Your task to perform on an android device: change the clock display to show seconds Image 0: 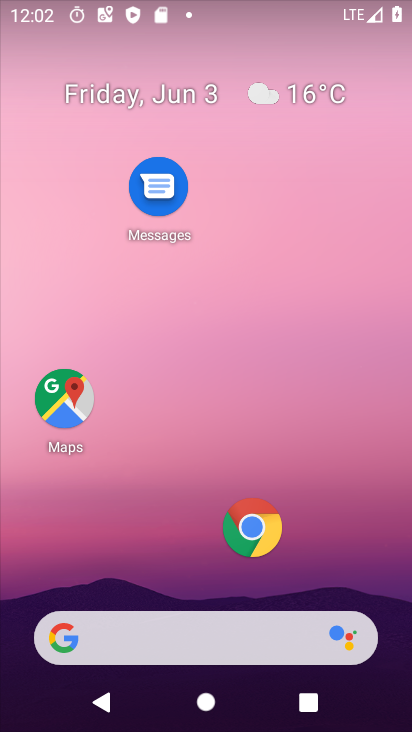
Step 0: drag from (317, 576) to (298, 138)
Your task to perform on an android device: change the clock display to show seconds Image 1: 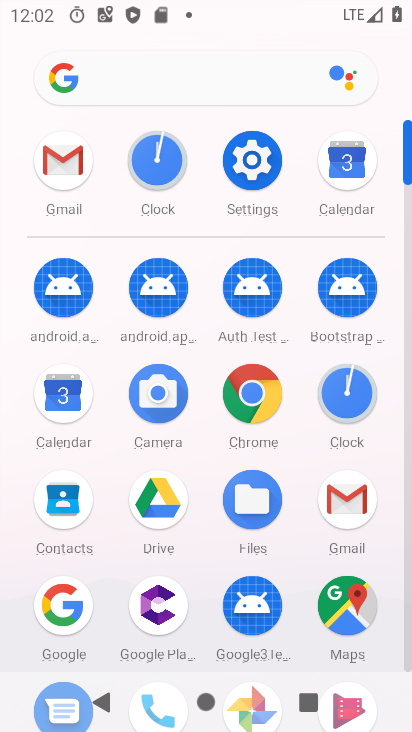
Step 1: click (344, 381)
Your task to perform on an android device: change the clock display to show seconds Image 2: 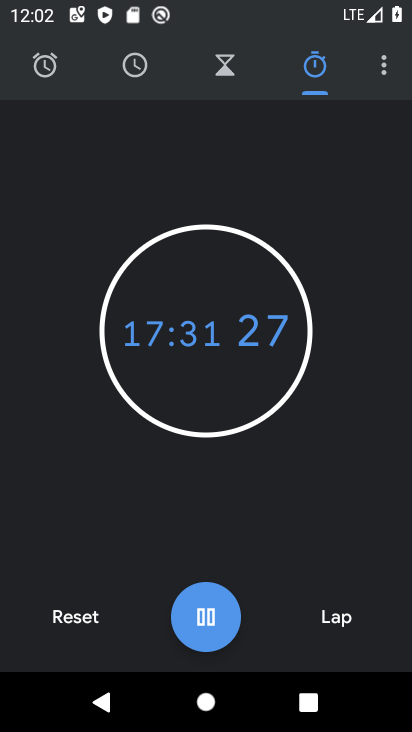
Step 2: click (387, 66)
Your task to perform on an android device: change the clock display to show seconds Image 3: 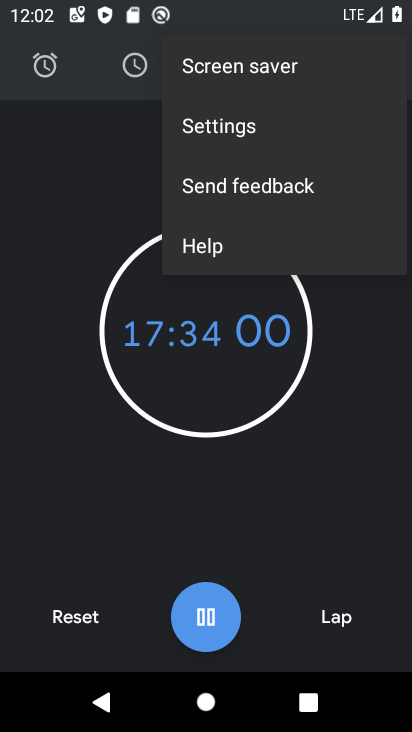
Step 3: click (269, 123)
Your task to perform on an android device: change the clock display to show seconds Image 4: 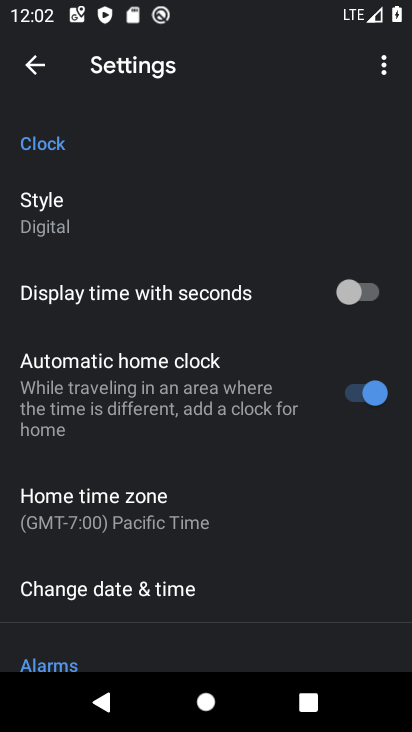
Step 4: click (360, 289)
Your task to perform on an android device: change the clock display to show seconds Image 5: 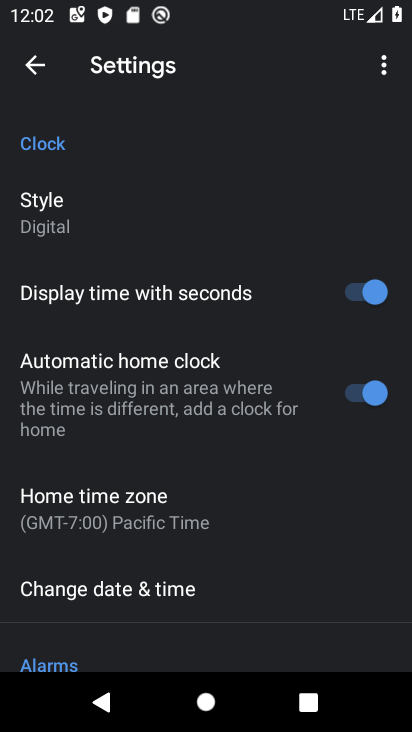
Step 5: task complete